Your task to perform on an android device: Search for seafood restaurants on Google Maps Image 0: 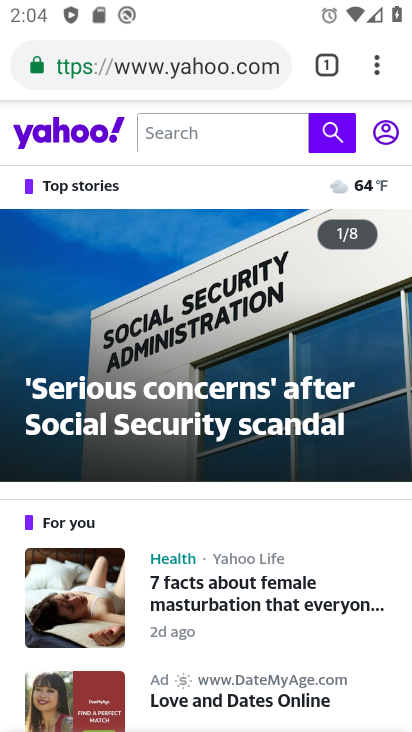
Step 0: press home button
Your task to perform on an android device: Search for seafood restaurants on Google Maps Image 1: 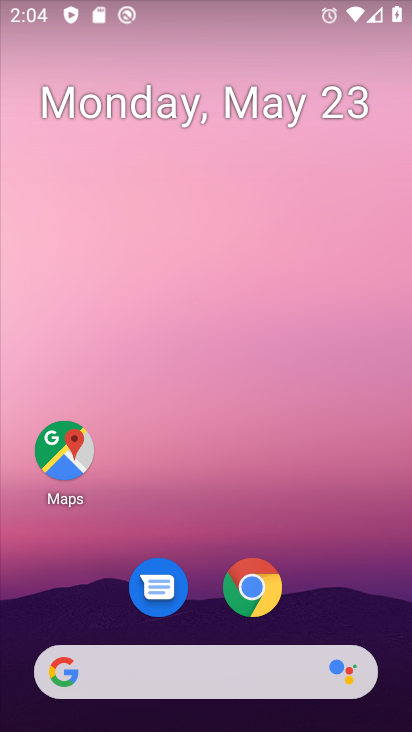
Step 1: drag from (370, 609) to (285, 132)
Your task to perform on an android device: Search for seafood restaurants on Google Maps Image 2: 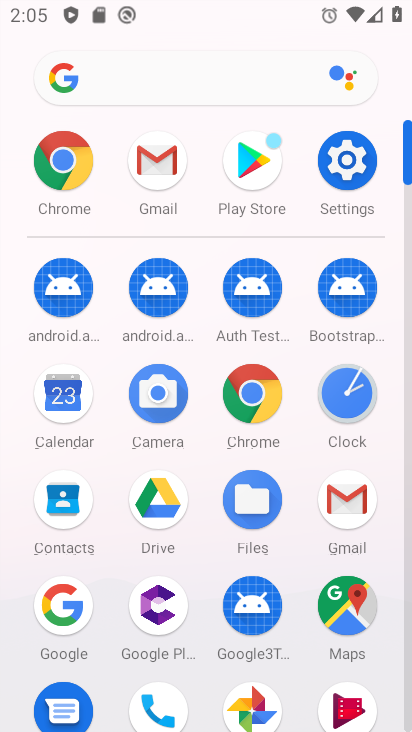
Step 2: click (350, 631)
Your task to perform on an android device: Search for seafood restaurants on Google Maps Image 3: 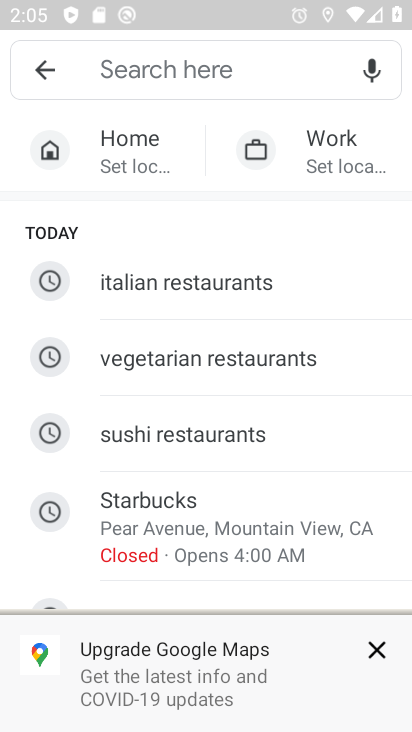
Step 3: click (192, 76)
Your task to perform on an android device: Search for seafood restaurants on Google Maps Image 4: 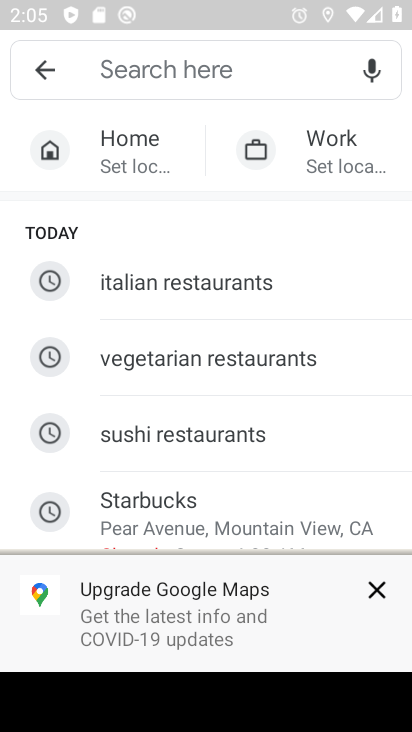
Step 4: type "seafoo"
Your task to perform on an android device: Search for seafood restaurants on Google Maps Image 5: 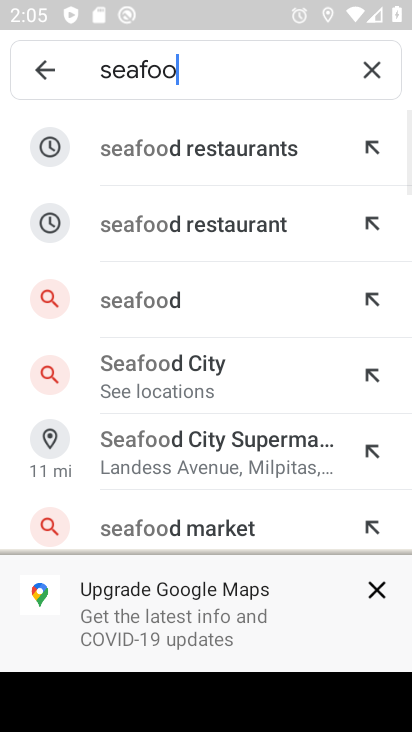
Step 5: click (244, 157)
Your task to perform on an android device: Search for seafood restaurants on Google Maps Image 6: 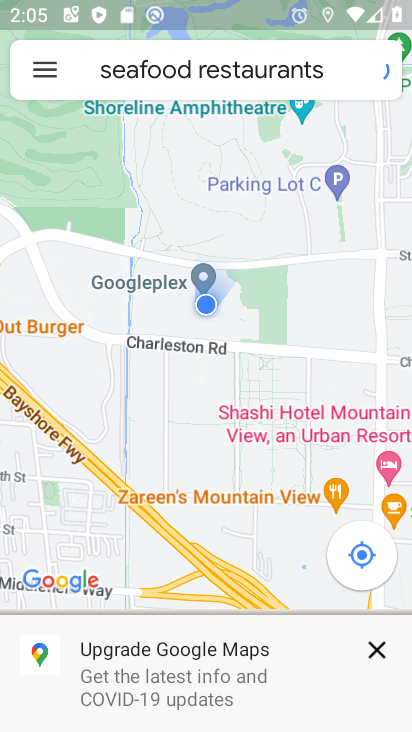
Step 6: task complete